Your task to perform on an android device: Show me popular videos on Youtube Image 0: 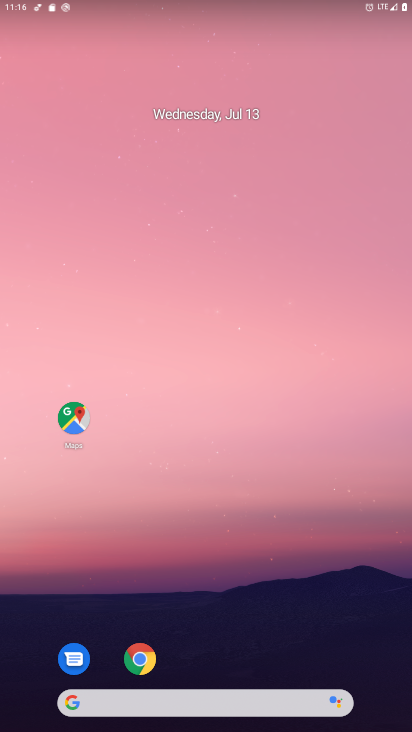
Step 0: drag from (216, 667) to (262, 12)
Your task to perform on an android device: Show me popular videos on Youtube Image 1: 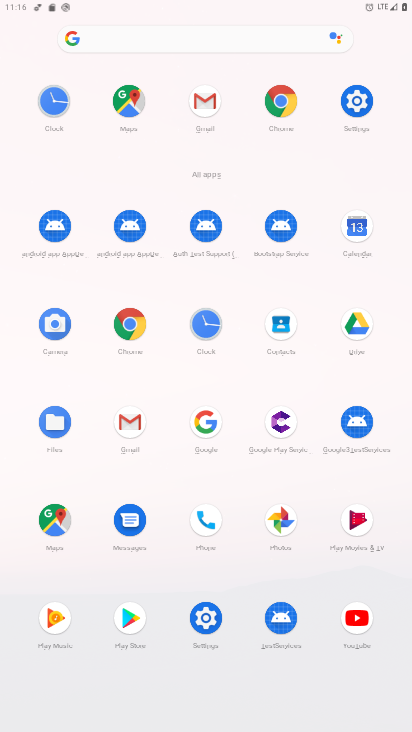
Step 1: click (354, 611)
Your task to perform on an android device: Show me popular videos on Youtube Image 2: 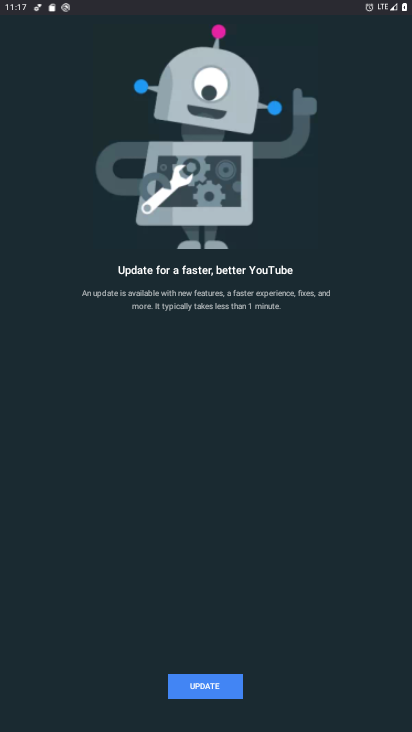
Step 2: click (205, 683)
Your task to perform on an android device: Show me popular videos on Youtube Image 3: 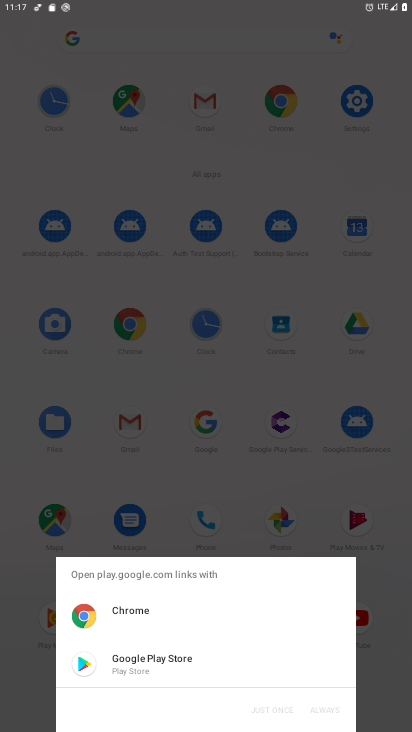
Step 3: click (140, 659)
Your task to perform on an android device: Show me popular videos on Youtube Image 4: 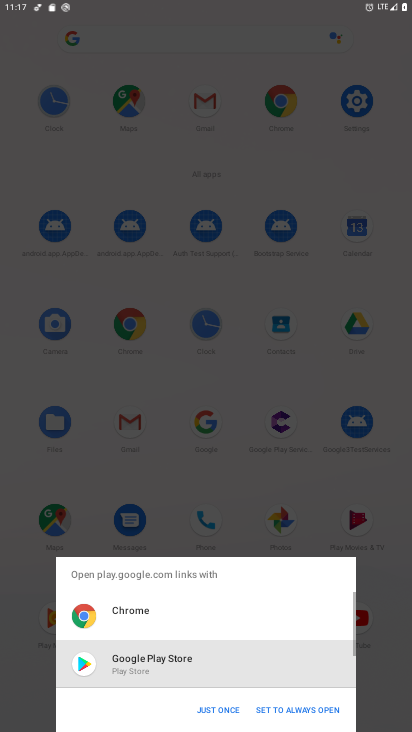
Step 4: click (214, 710)
Your task to perform on an android device: Show me popular videos on Youtube Image 5: 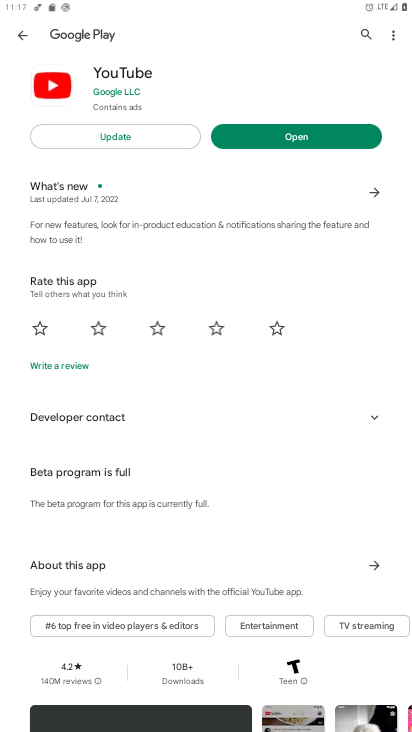
Step 5: click (121, 135)
Your task to perform on an android device: Show me popular videos on Youtube Image 6: 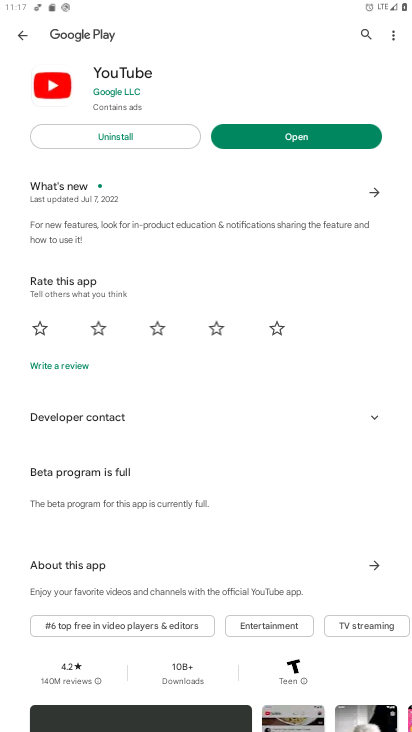
Step 6: click (295, 134)
Your task to perform on an android device: Show me popular videos on Youtube Image 7: 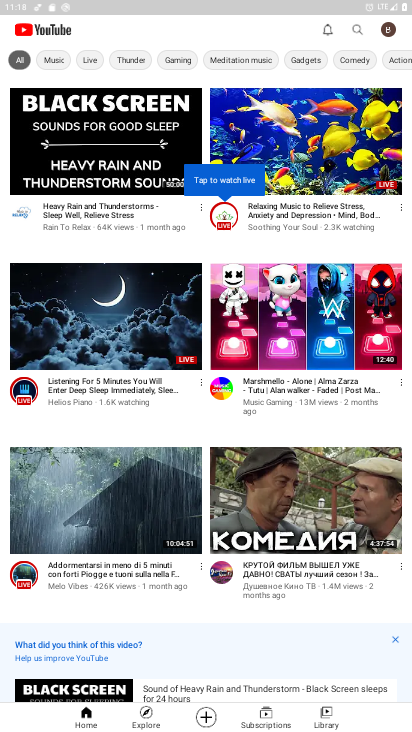
Step 7: click (144, 715)
Your task to perform on an android device: Show me popular videos on Youtube Image 8: 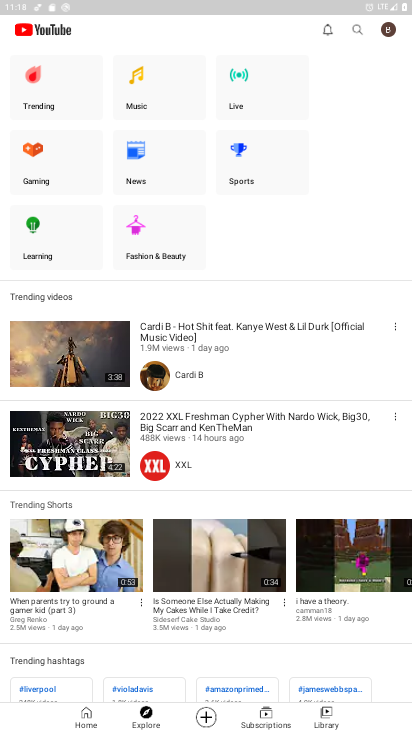
Step 8: click (50, 91)
Your task to perform on an android device: Show me popular videos on Youtube Image 9: 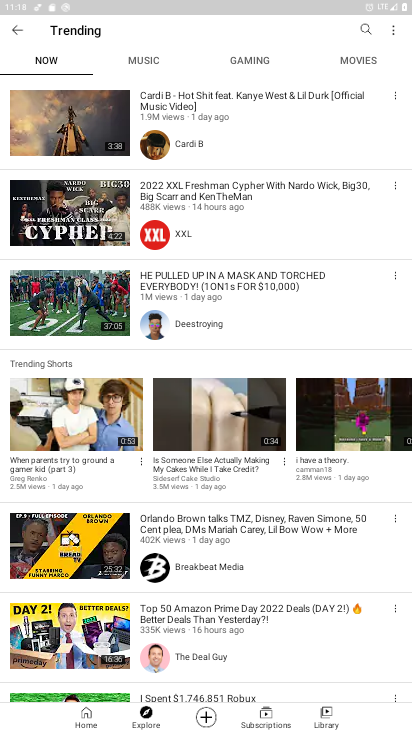
Step 9: task complete